Your task to perform on an android device: empty trash in google photos Image 0: 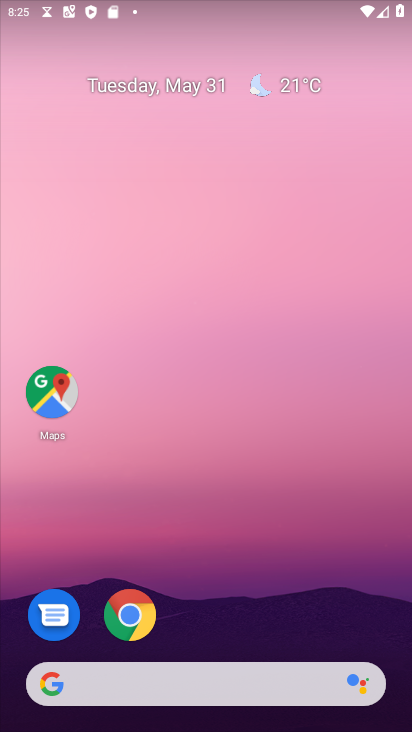
Step 0: press home button
Your task to perform on an android device: empty trash in google photos Image 1: 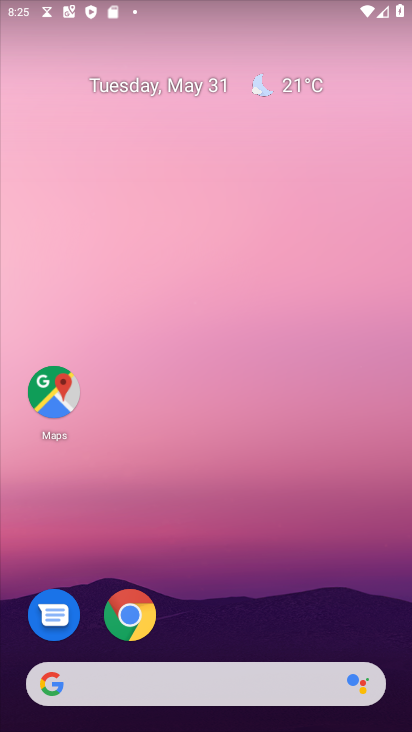
Step 1: drag from (187, 678) to (318, 88)
Your task to perform on an android device: empty trash in google photos Image 2: 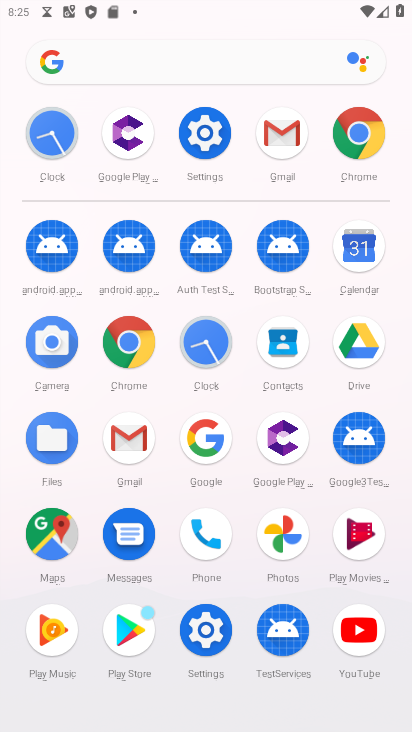
Step 2: click (284, 535)
Your task to perform on an android device: empty trash in google photos Image 3: 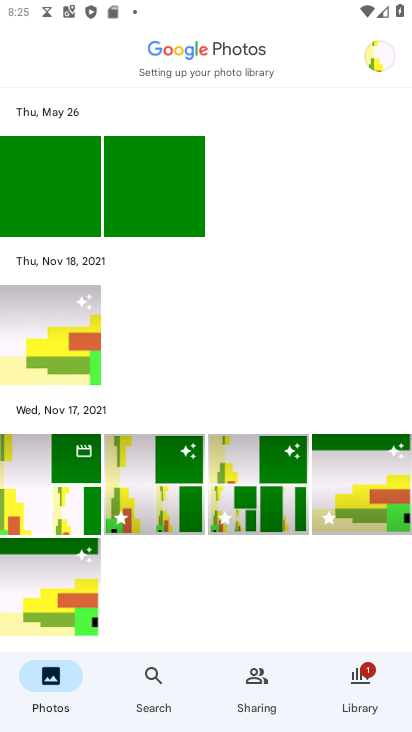
Step 3: click (369, 678)
Your task to perform on an android device: empty trash in google photos Image 4: 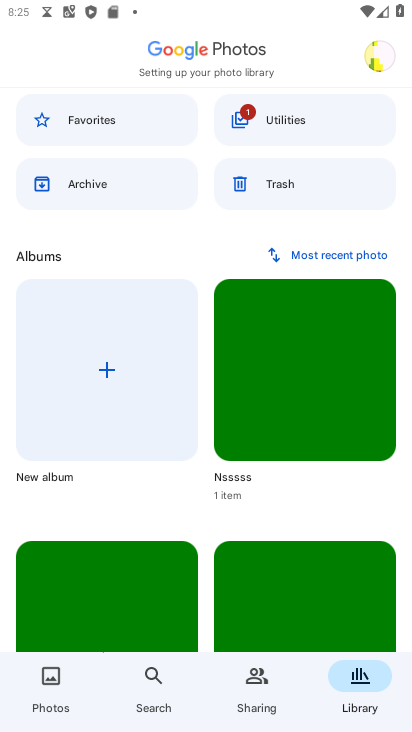
Step 4: click (281, 183)
Your task to perform on an android device: empty trash in google photos Image 5: 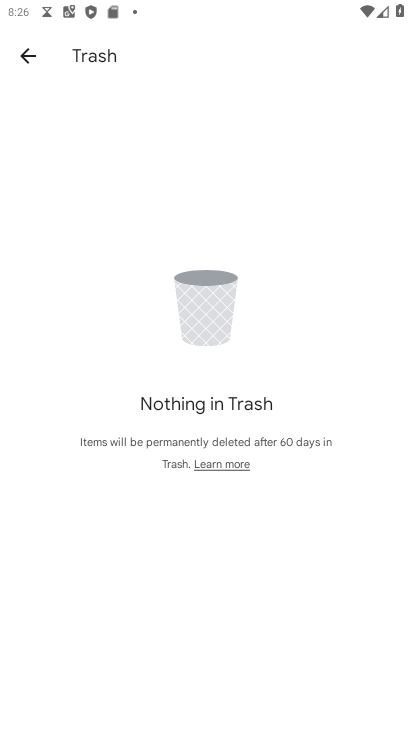
Step 5: task complete